Your task to perform on an android device: delete browsing data in the chrome app Image 0: 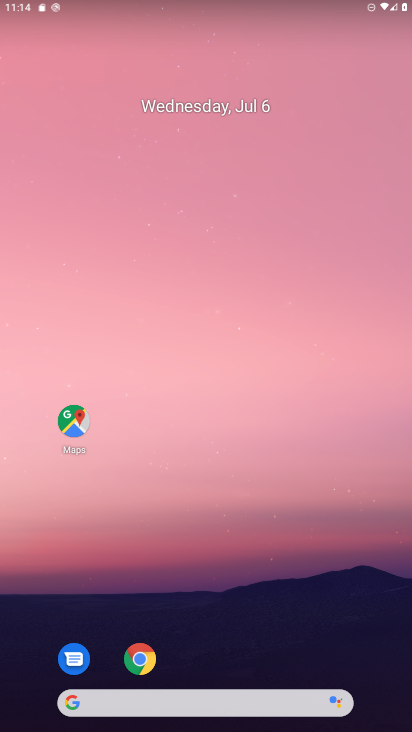
Step 0: click (137, 663)
Your task to perform on an android device: delete browsing data in the chrome app Image 1: 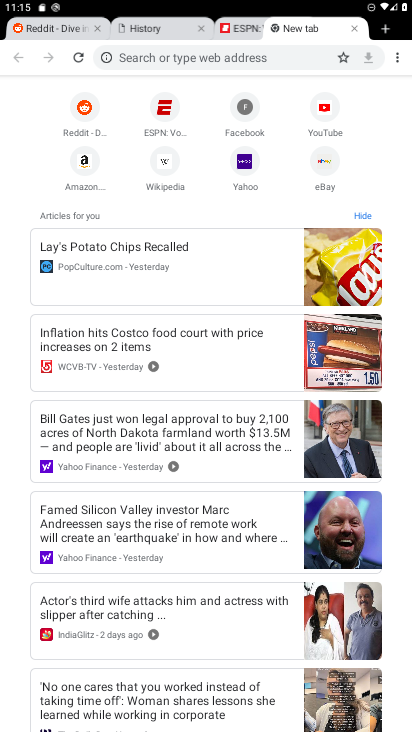
Step 1: drag from (394, 55) to (288, 167)
Your task to perform on an android device: delete browsing data in the chrome app Image 2: 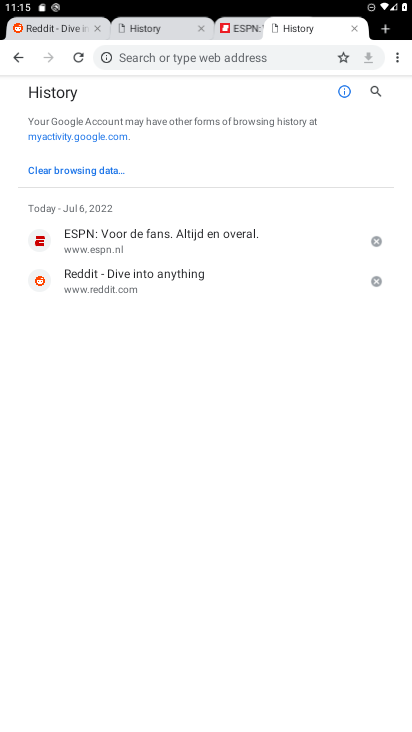
Step 2: click (76, 168)
Your task to perform on an android device: delete browsing data in the chrome app Image 3: 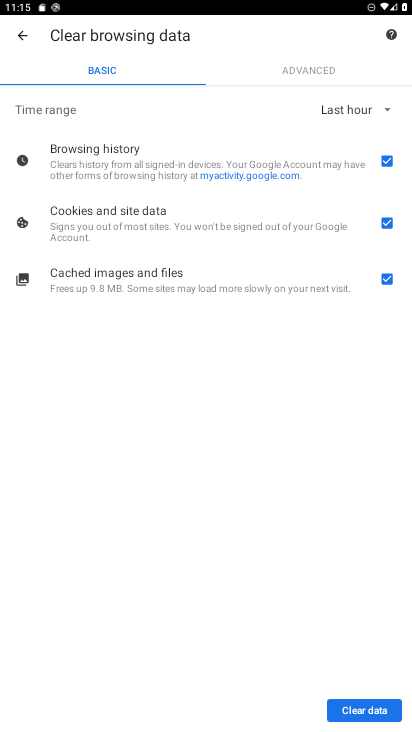
Step 3: click (372, 705)
Your task to perform on an android device: delete browsing data in the chrome app Image 4: 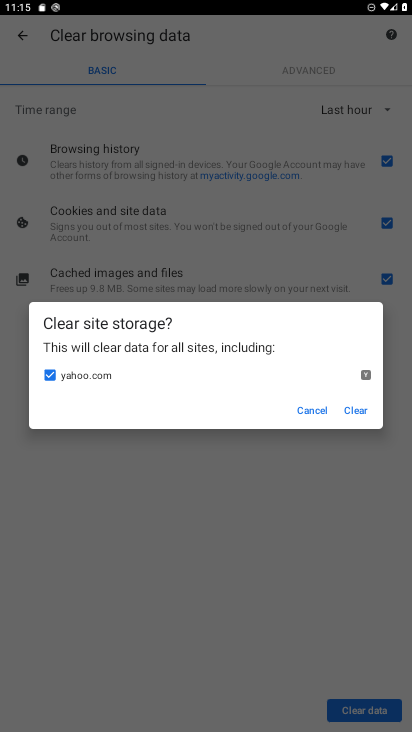
Step 4: click (363, 403)
Your task to perform on an android device: delete browsing data in the chrome app Image 5: 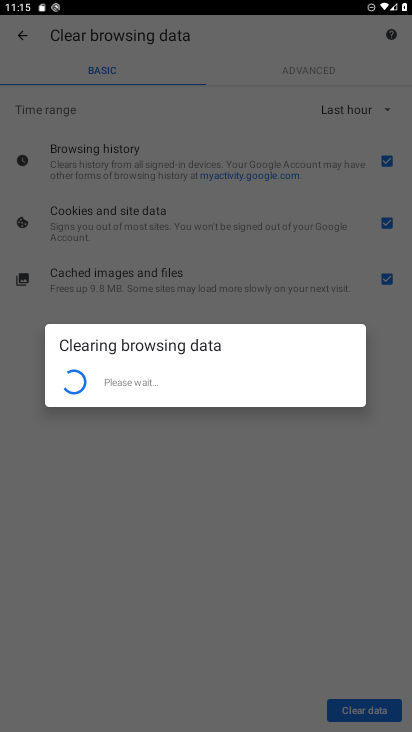
Step 5: task complete